Your task to perform on an android device: Show me the alarms in the clock app Image 0: 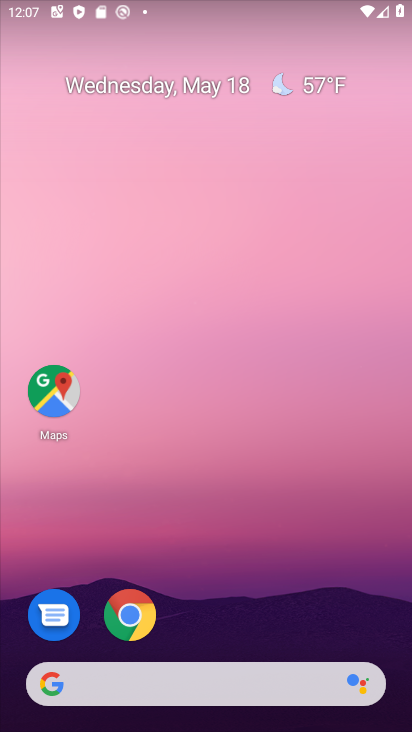
Step 0: drag from (353, 616) to (255, 71)
Your task to perform on an android device: Show me the alarms in the clock app Image 1: 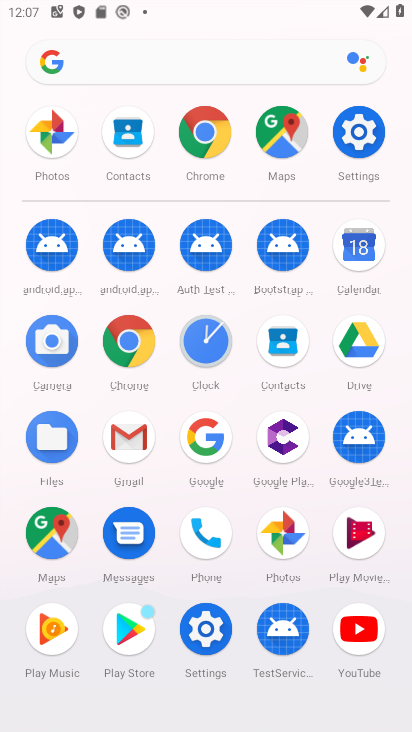
Step 1: click (202, 362)
Your task to perform on an android device: Show me the alarms in the clock app Image 2: 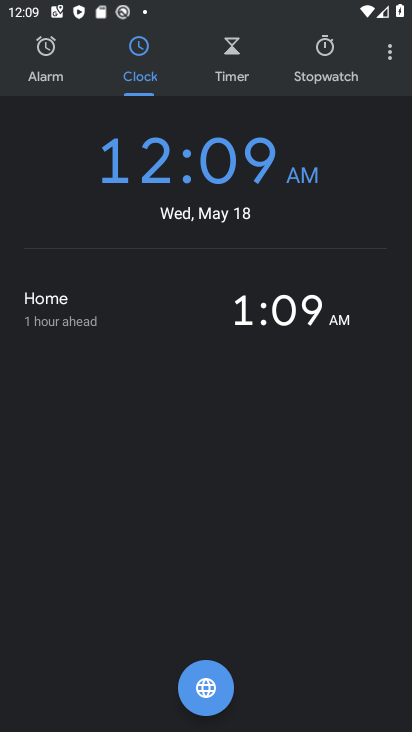
Step 2: click (35, 72)
Your task to perform on an android device: Show me the alarms in the clock app Image 3: 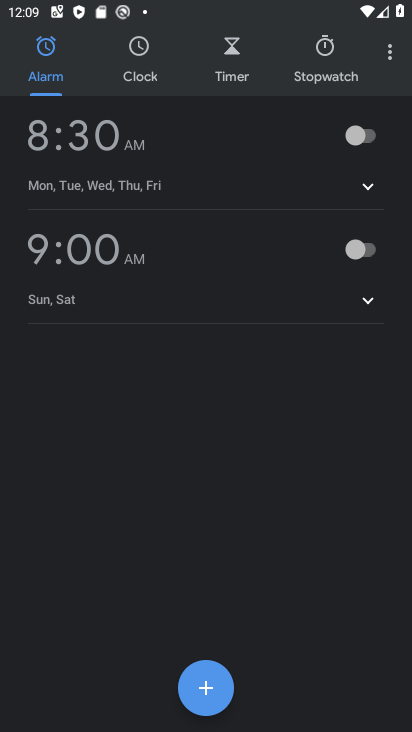
Step 3: task complete